Your task to perform on an android device: Search for pizza restaurants on Maps Image 0: 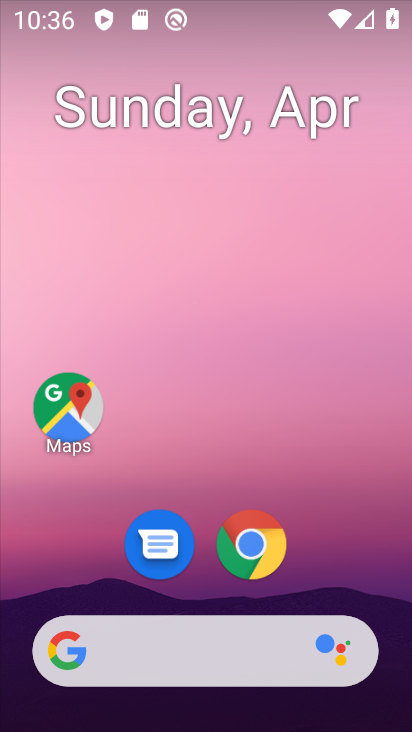
Step 0: click (74, 436)
Your task to perform on an android device: Search for pizza restaurants on Maps Image 1: 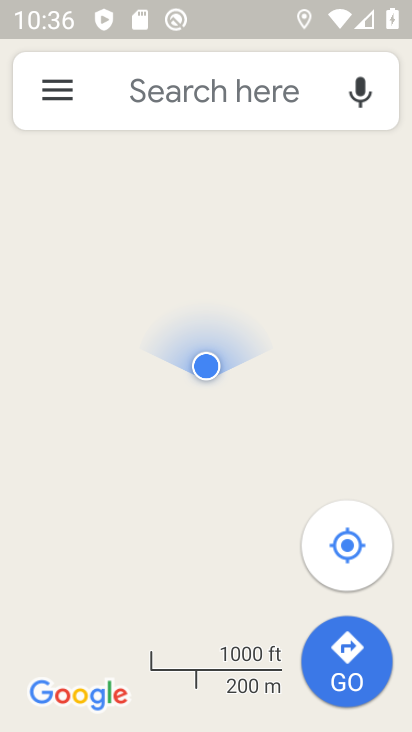
Step 1: click (208, 82)
Your task to perform on an android device: Search for pizza restaurants on Maps Image 2: 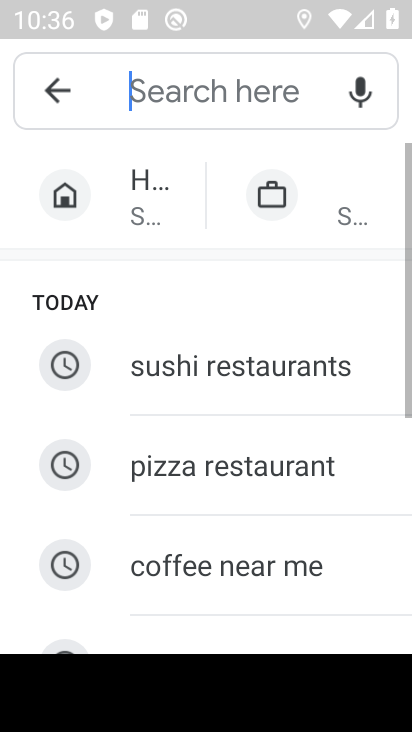
Step 2: type "pizza restaurants"
Your task to perform on an android device: Search for pizza restaurants on Maps Image 3: 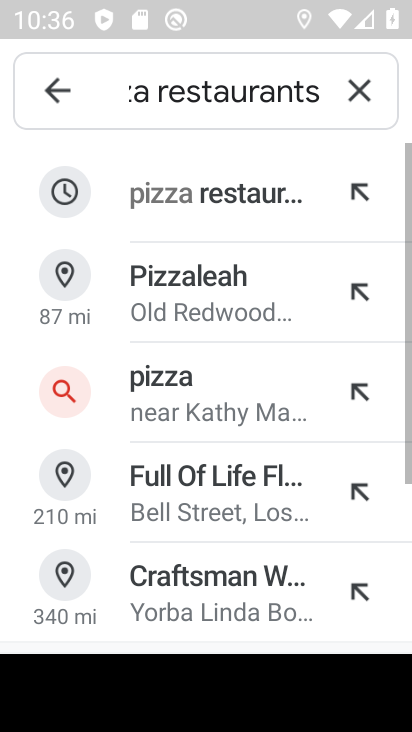
Step 3: click (249, 196)
Your task to perform on an android device: Search for pizza restaurants on Maps Image 4: 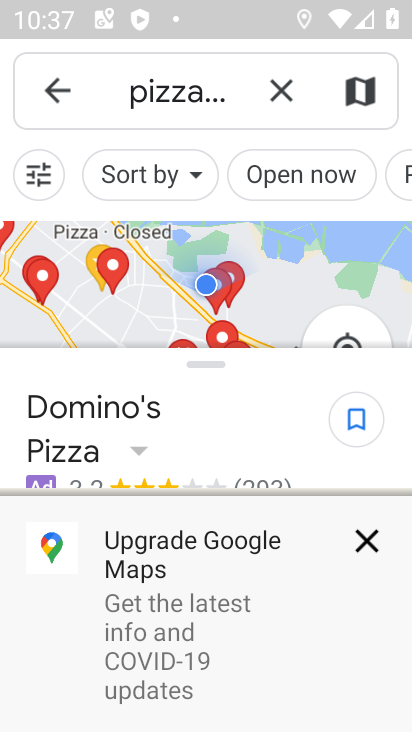
Step 4: task complete